Your task to perform on an android device: move a message to another label in the gmail app Image 0: 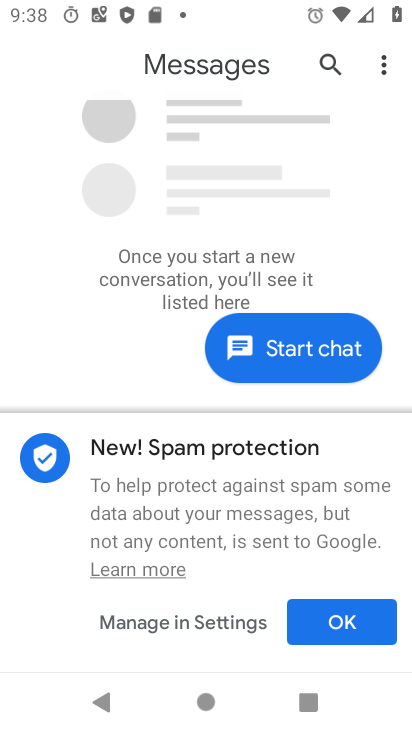
Step 0: press home button
Your task to perform on an android device: move a message to another label in the gmail app Image 1: 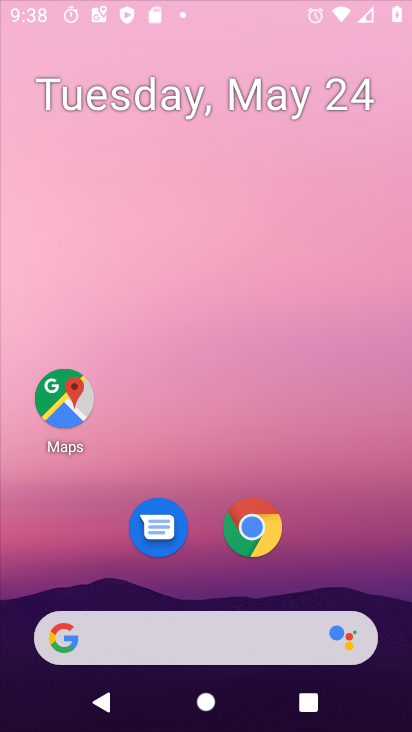
Step 1: press home button
Your task to perform on an android device: move a message to another label in the gmail app Image 2: 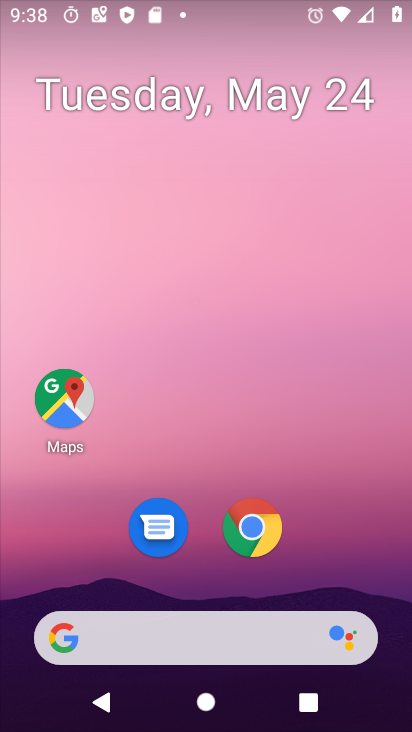
Step 2: drag from (393, 665) to (366, 192)
Your task to perform on an android device: move a message to another label in the gmail app Image 3: 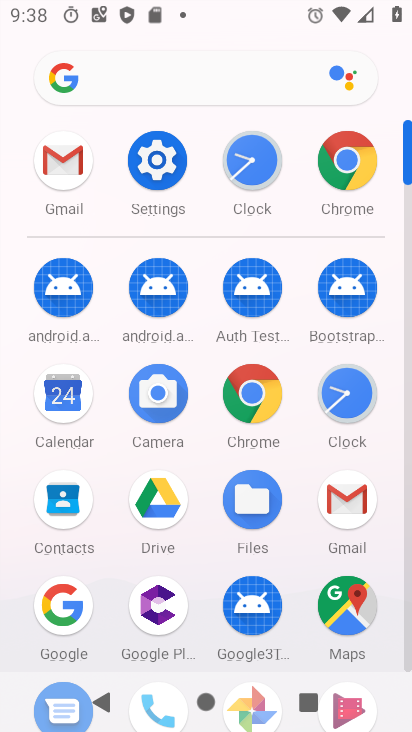
Step 3: click (349, 496)
Your task to perform on an android device: move a message to another label in the gmail app Image 4: 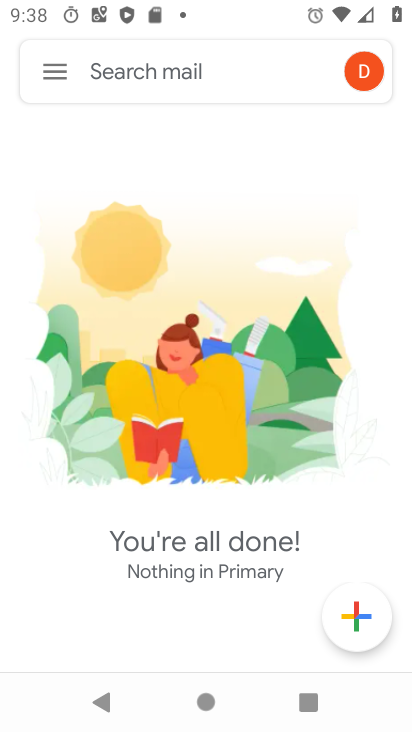
Step 4: click (49, 68)
Your task to perform on an android device: move a message to another label in the gmail app Image 5: 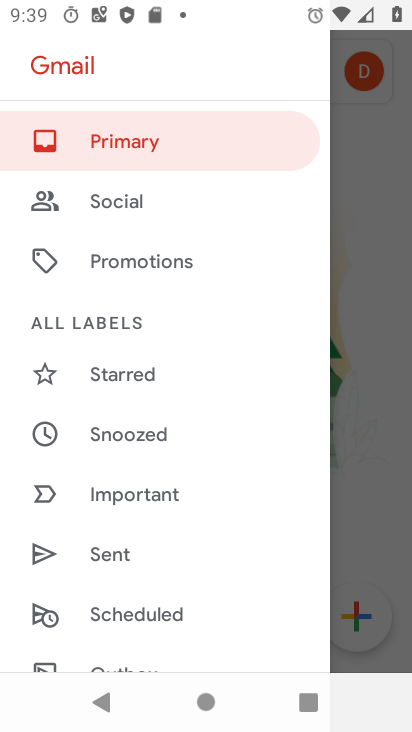
Step 5: click (132, 143)
Your task to perform on an android device: move a message to another label in the gmail app Image 6: 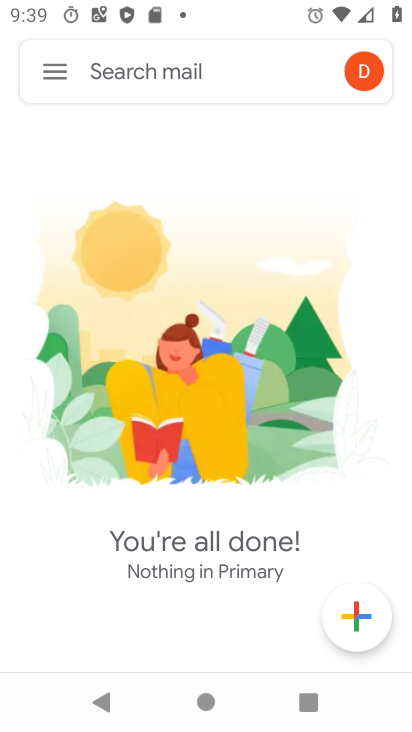
Step 6: task complete